Your task to perform on an android device: Open sound settings Image 0: 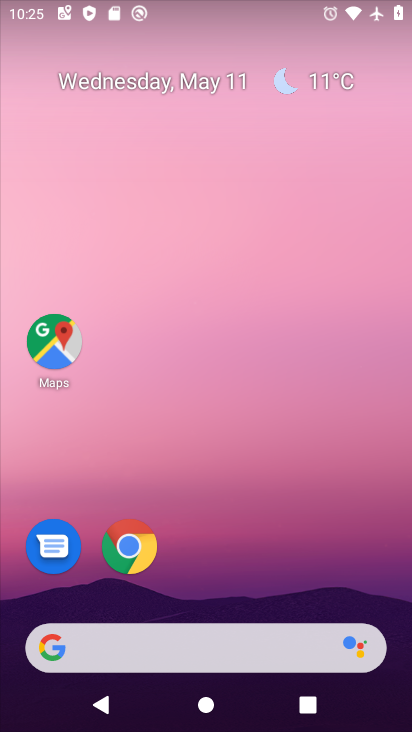
Step 0: drag from (390, 618) to (302, 112)
Your task to perform on an android device: Open sound settings Image 1: 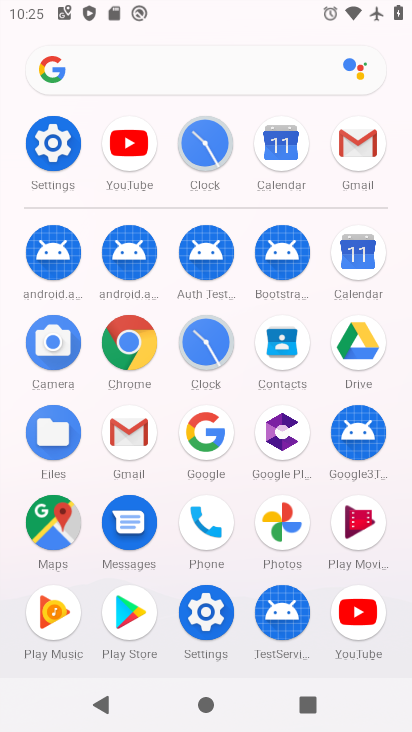
Step 1: click (202, 608)
Your task to perform on an android device: Open sound settings Image 2: 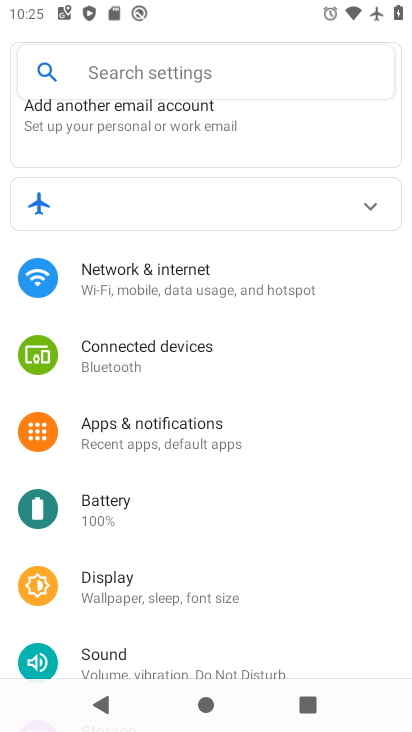
Step 2: drag from (295, 633) to (288, 342)
Your task to perform on an android device: Open sound settings Image 3: 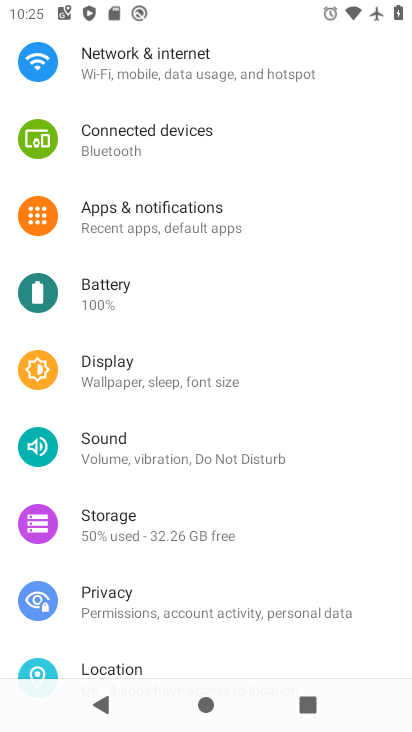
Step 3: click (104, 449)
Your task to perform on an android device: Open sound settings Image 4: 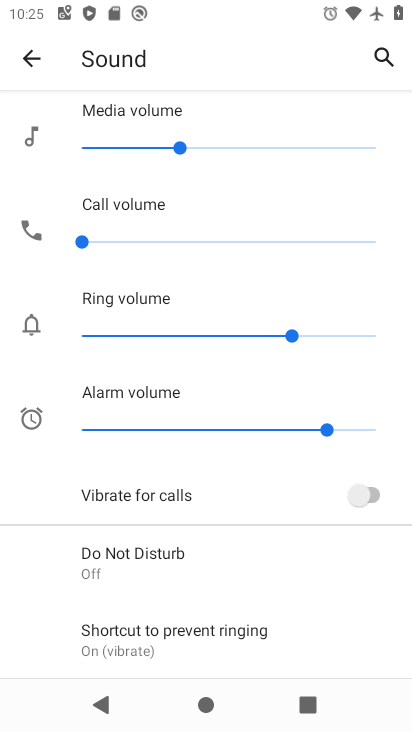
Step 4: drag from (270, 588) to (271, 235)
Your task to perform on an android device: Open sound settings Image 5: 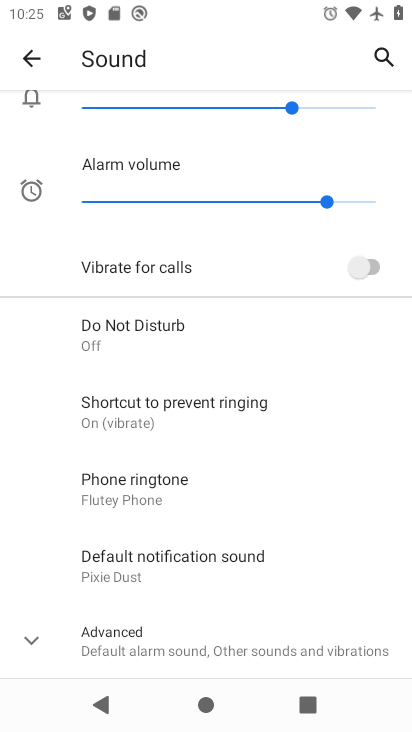
Step 5: click (35, 643)
Your task to perform on an android device: Open sound settings Image 6: 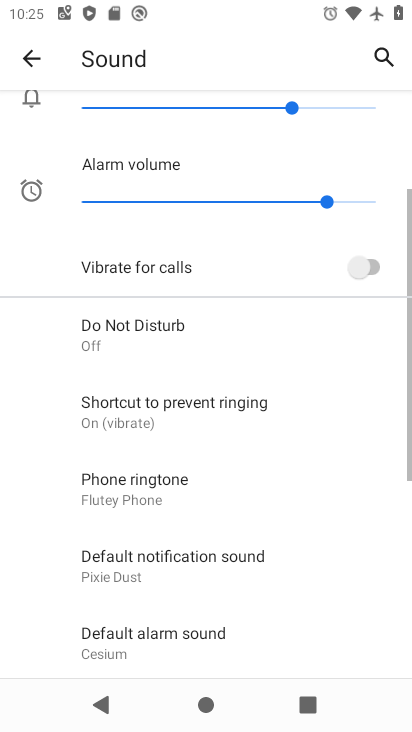
Step 6: task complete